Your task to perform on an android device: turn notification dots off Image 0: 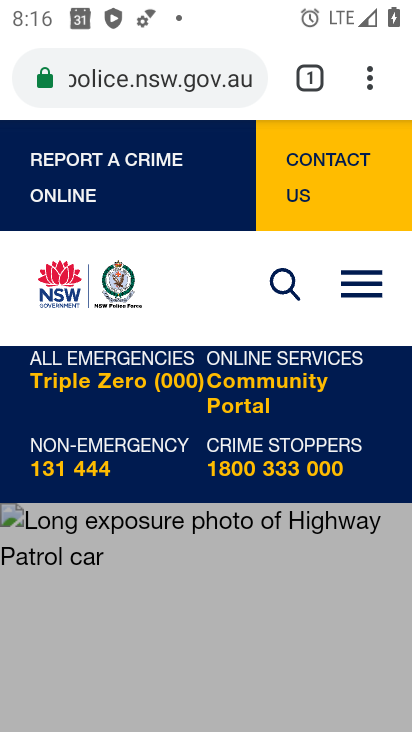
Step 0: press home button
Your task to perform on an android device: turn notification dots off Image 1: 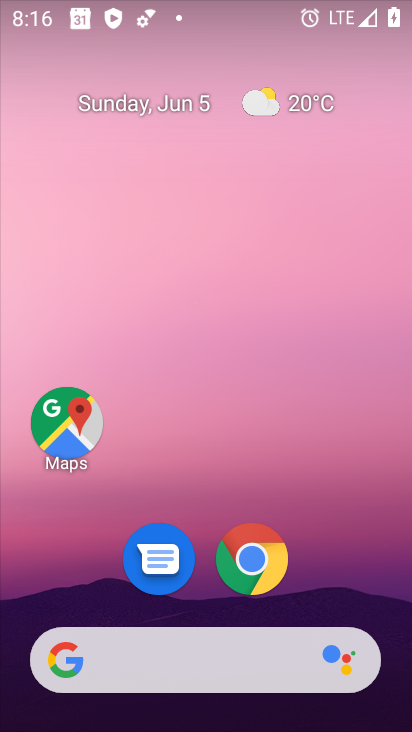
Step 1: drag from (383, 484) to (270, 104)
Your task to perform on an android device: turn notification dots off Image 2: 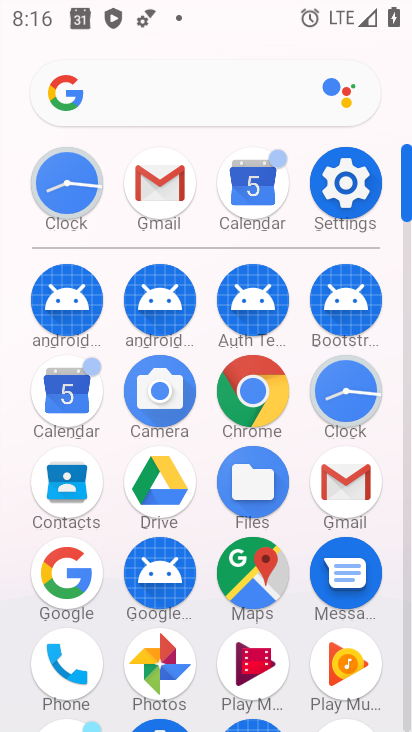
Step 2: click (367, 196)
Your task to perform on an android device: turn notification dots off Image 3: 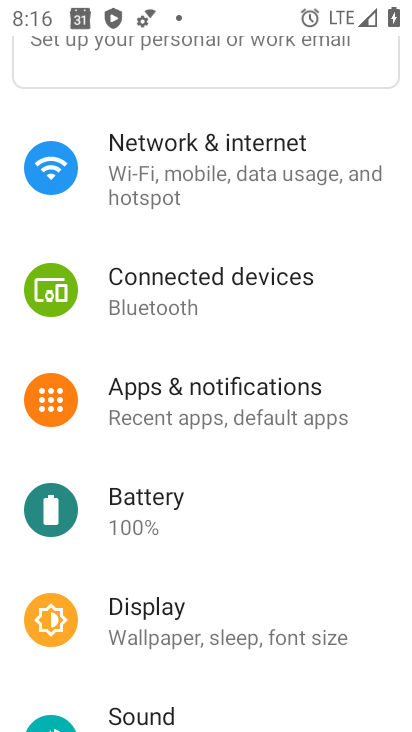
Step 3: click (240, 414)
Your task to perform on an android device: turn notification dots off Image 4: 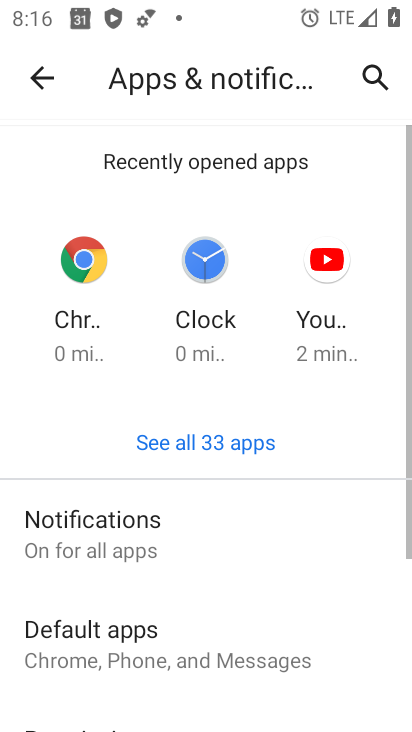
Step 4: click (142, 521)
Your task to perform on an android device: turn notification dots off Image 5: 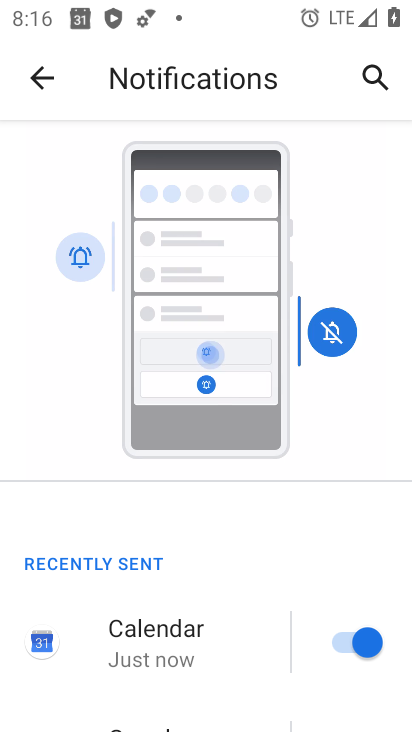
Step 5: click (44, 64)
Your task to perform on an android device: turn notification dots off Image 6: 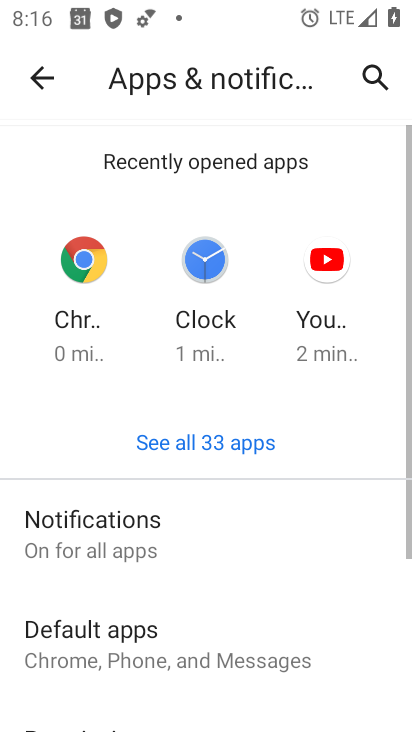
Step 6: drag from (210, 543) to (192, 51)
Your task to perform on an android device: turn notification dots off Image 7: 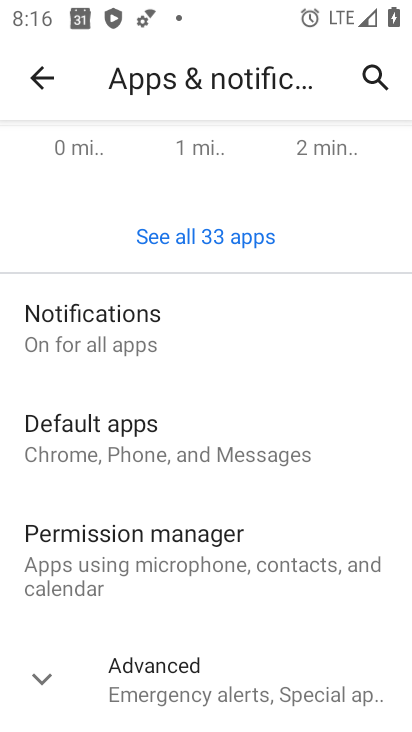
Step 7: click (154, 649)
Your task to perform on an android device: turn notification dots off Image 8: 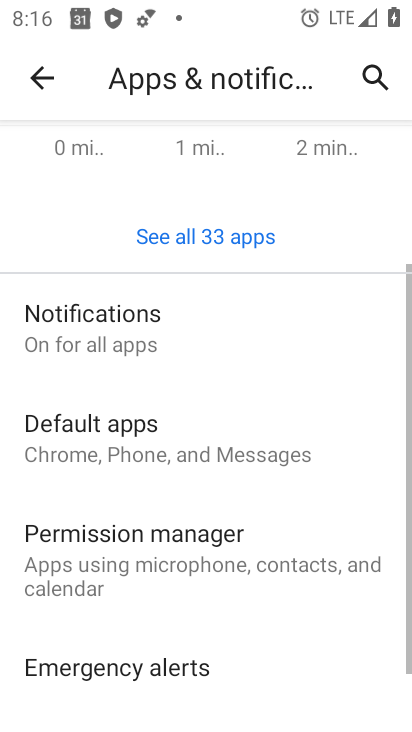
Step 8: drag from (196, 586) to (264, 98)
Your task to perform on an android device: turn notification dots off Image 9: 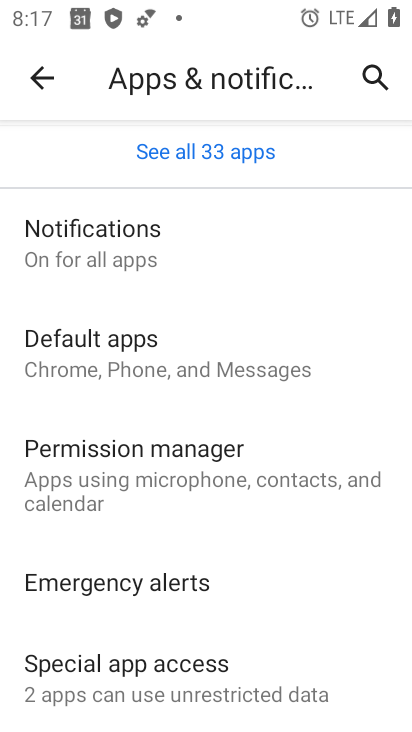
Step 9: drag from (238, 243) to (228, 640)
Your task to perform on an android device: turn notification dots off Image 10: 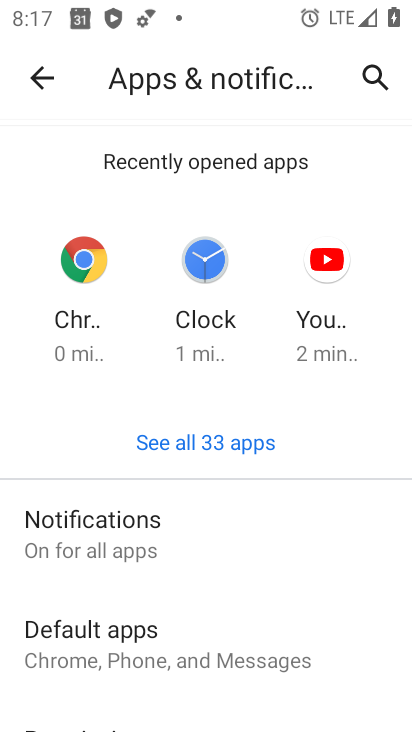
Step 10: click (71, 549)
Your task to perform on an android device: turn notification dots off Image 11: 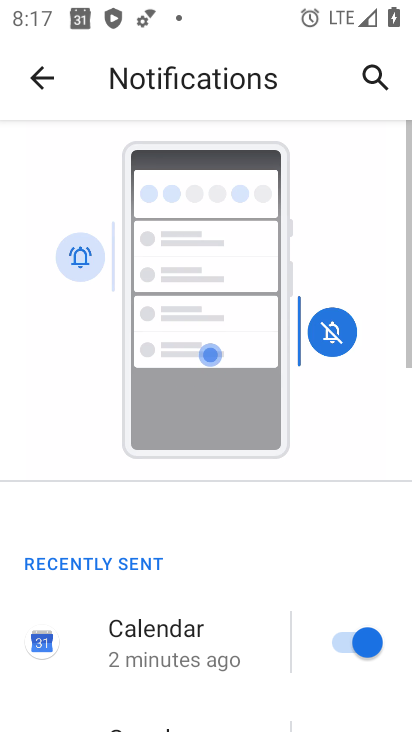
Step 11: drag from (259, 612) to (271, 42)
Your task to perform on an android device: turn notification dots off Image 12: 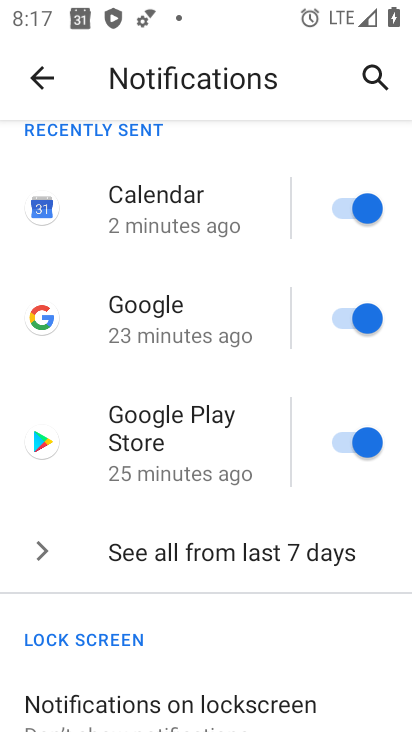
Step 12: drag from (167, 580) to (252, 103)
Your task to perform on an android device: turn notification dots off Image 13: 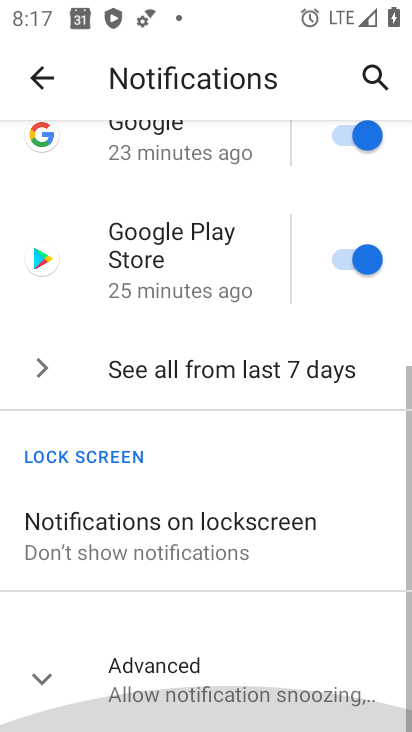
Step 13: click (252, 103)
Your task to perform on an android device: turn notification dots off Image 14: 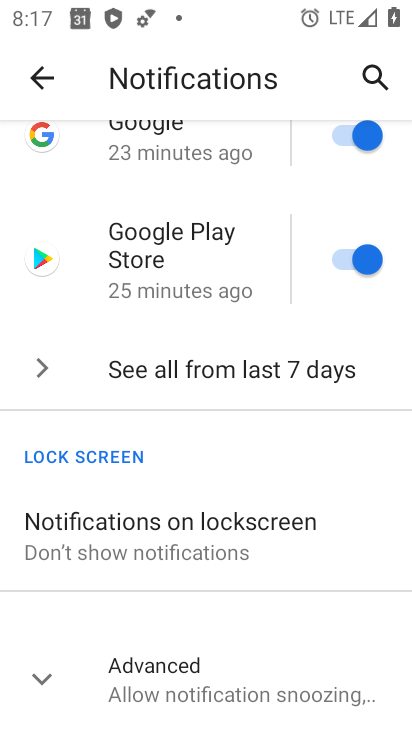
Step 14: click (184, 667)
Your task to perform on an android device: turn notification dots off Image 15: 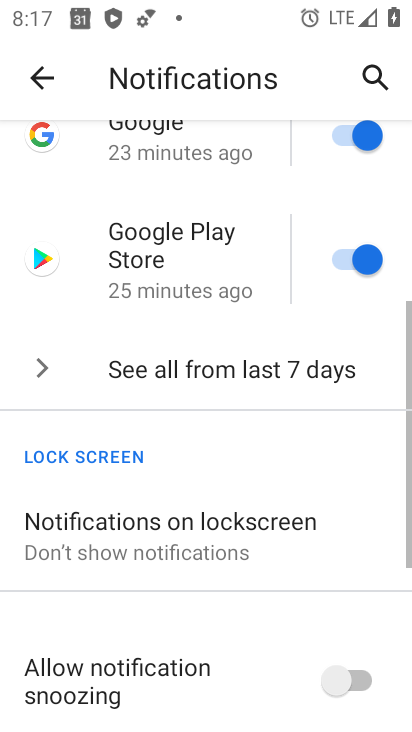
Step 15: drag from (207, 615) to (272, 150)
Your task to perform on an android device: turn notification dots off Image 16: 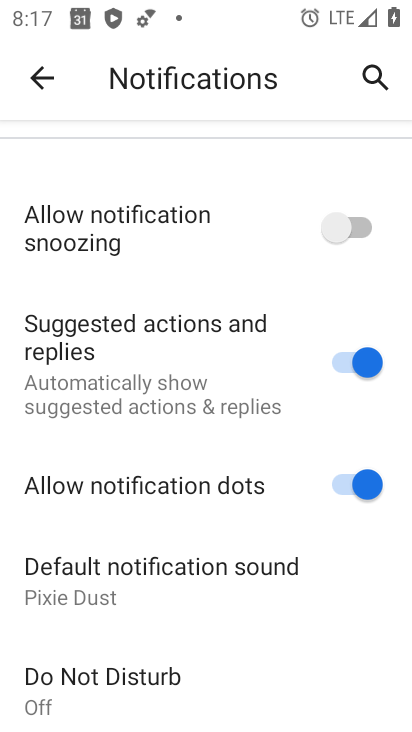
Step 16: click (355, 500)
Your task to perform on an android device: turn notification dots off Image 17: 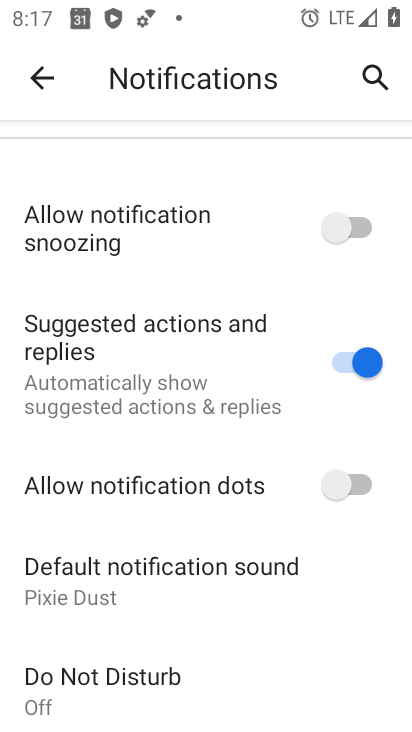
Step 17: task complete